Your task to perform on an android device: Is it going to rain today? Image 0: 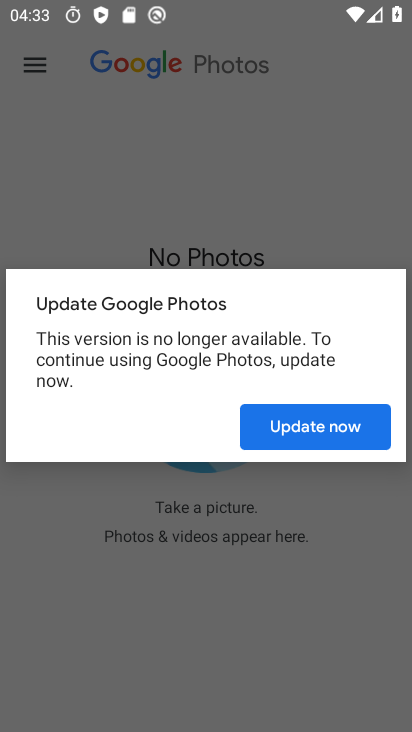
Step 0: press home button
Your task to perform on an android device: Is it going to rain today? Image 1: 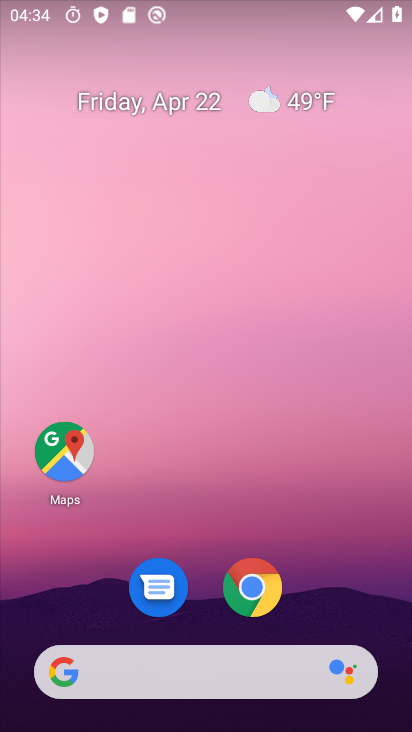
Step 1: click (302, 110)
Your task to perform on an android device: Is it going to rain today? Image 2: 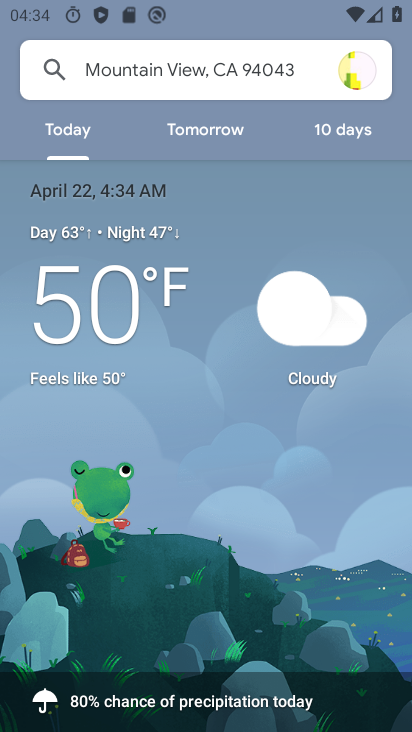
Step 2: task complete